Your task to perform on an android device: turn pop-ups on in chrome Image 0: 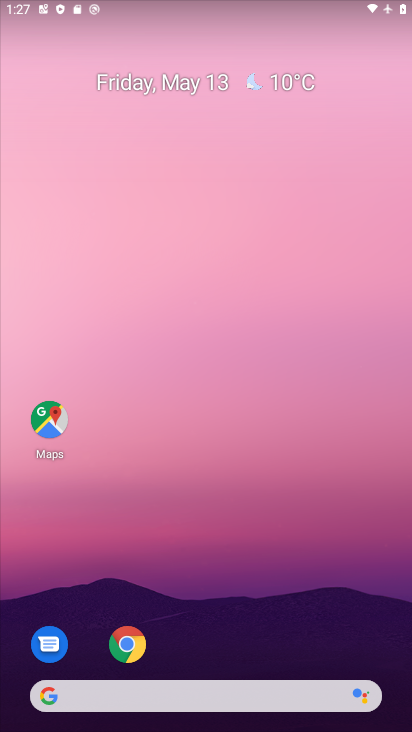
Step 0: click (127, 647)
Your task to perform on an android device: turn pop-ups on in chrome Image 1: 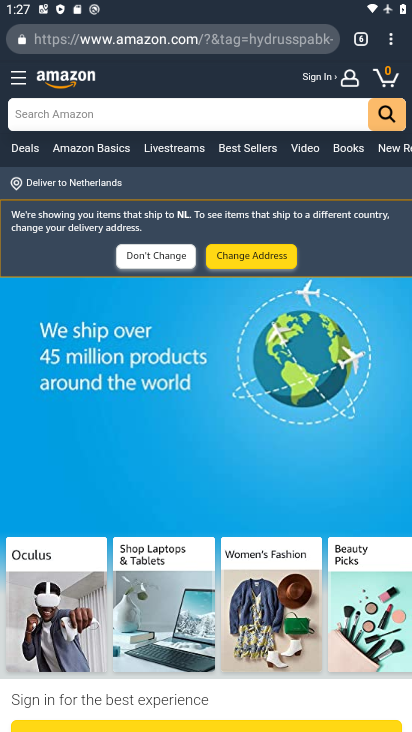
Step 1: click (390, 45)
Your task to perform on an android device: turn pop-ups on in chrome Image 2: 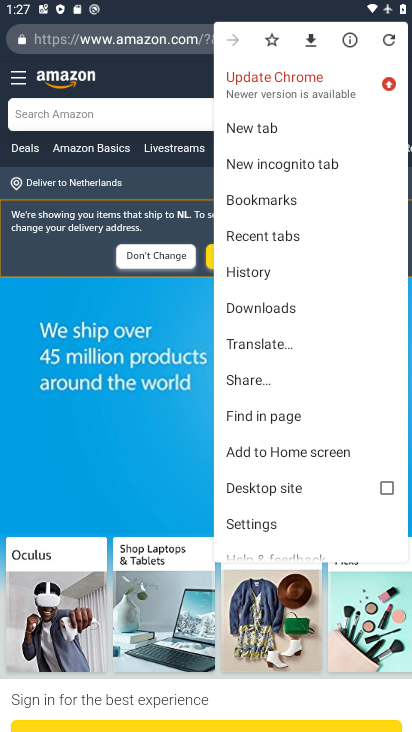
Step 2: click (255, 522)
Your task to perform on an android device: turn pop-ups on in chrome Image 3: 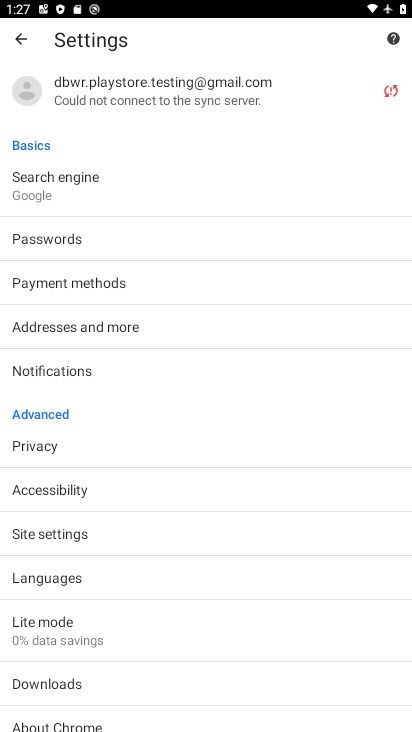
Step 3: click (62, 527)
Your task to perform on an android device: turn pop-ups on in chrome Image 4: 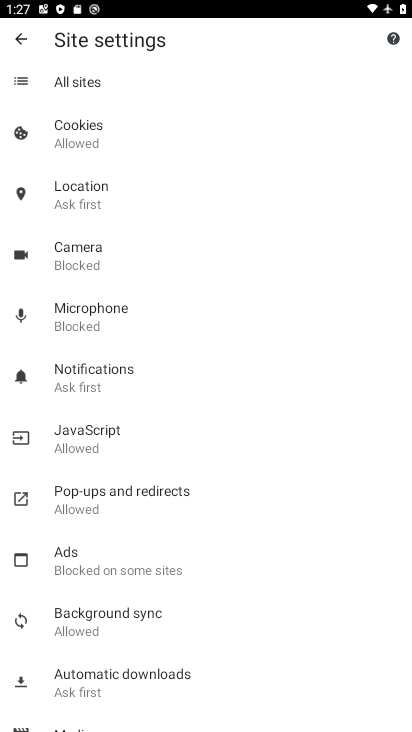
Step 4: click (88, 494)
Your task to perform on an android device: turn pop-ups on in chrome Image 5: 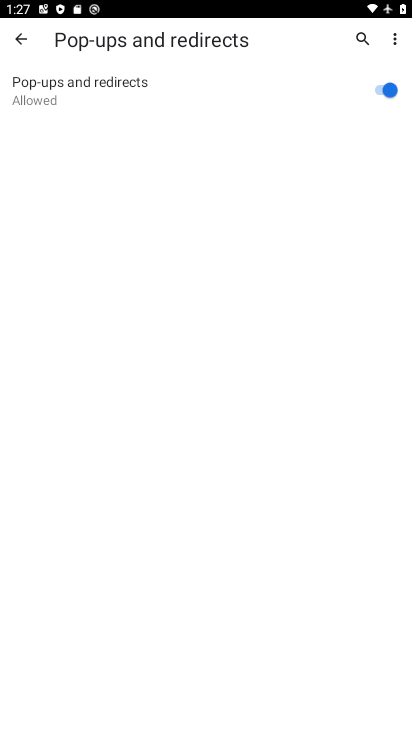
Step 5: task complete